Your task to perform on an android device: set the stopwatch Image 0: 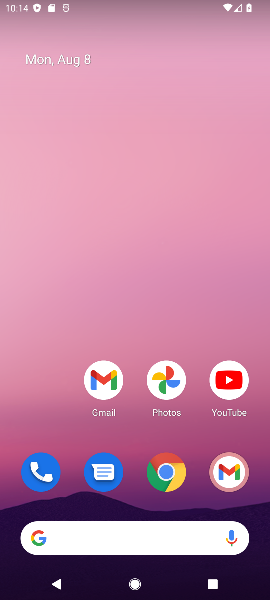
Step 0: drag from (201, 435) to (183, 96)
Your task to perform on an android device: set the stopwatch Image 1: 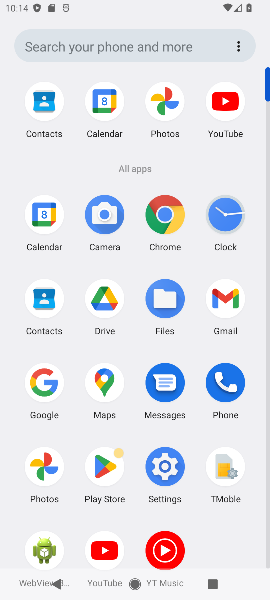
Step 1: click (229, 221)
Your task to perform on an android device: set the stopwatch Image 2: 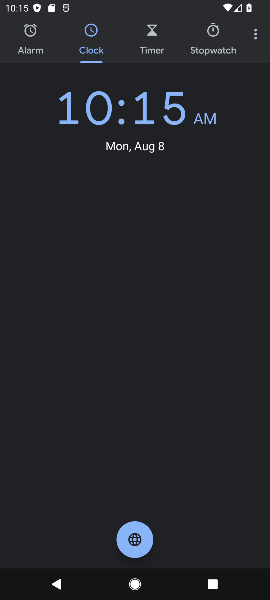
Step 2: click (227, 41)
Your task to perform on an android device: set the stopwatch Image 3: 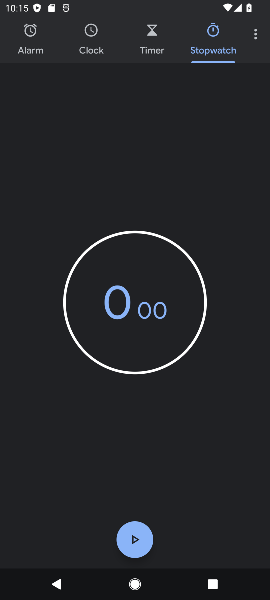
Step 3: click (144, 541)
Your task to perform on an android device: set the stopwatch Image 4: 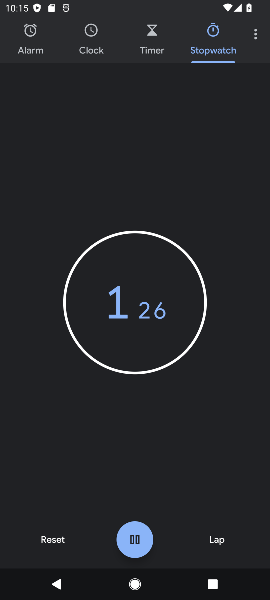
Step 4: task complete